Your task to perform on an android device: Open the calendar and show me this week's events? Image 0: 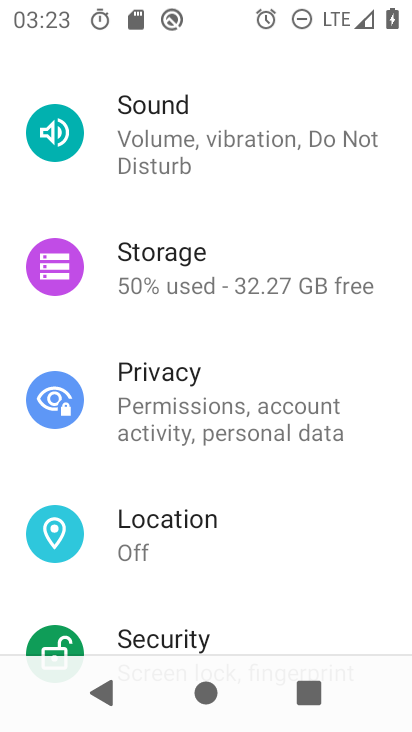
Step 0: press home button
Your task to perform on an android device: Open the calendar and show me this week's events? Image 1: 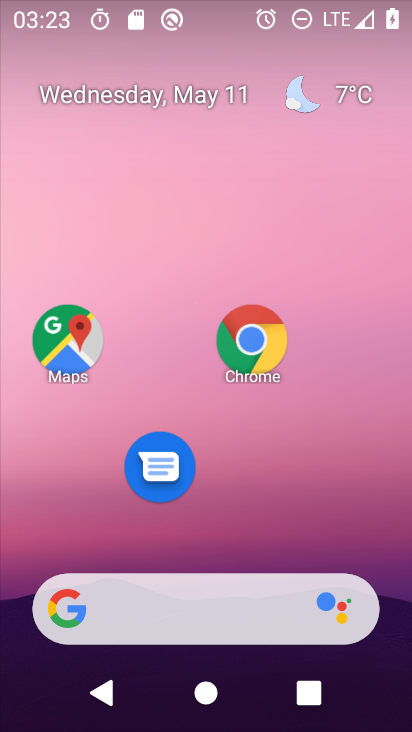
Step 1: drag from (207, 610) to (325, 176)
Your task to perform on an android device: Open the calendar and show me this week's events? Image 2: 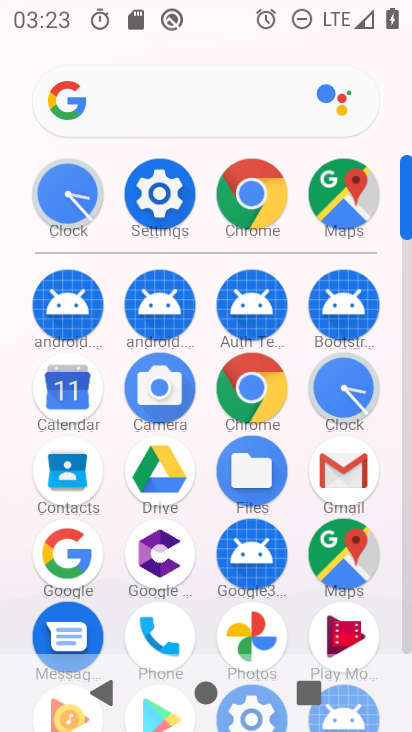
Step 2: click (66, 401)
Your task to perform on an android device: Open the calendar and show me this week's events? Image 3: 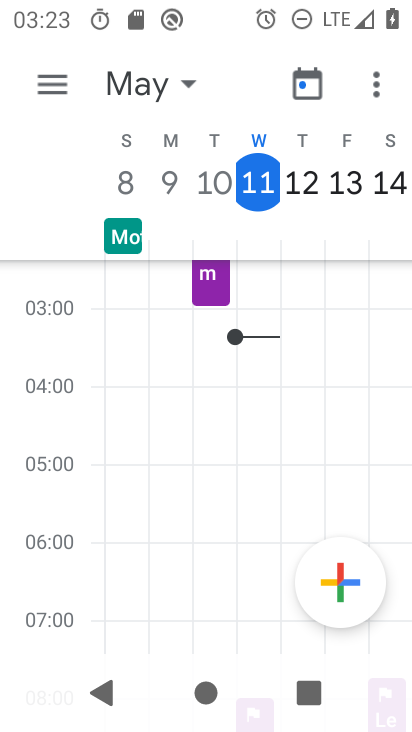
Step 3: click (139, 86)
Your task to perform on an android device: Open the calendar and show me this week's events? Image 4: 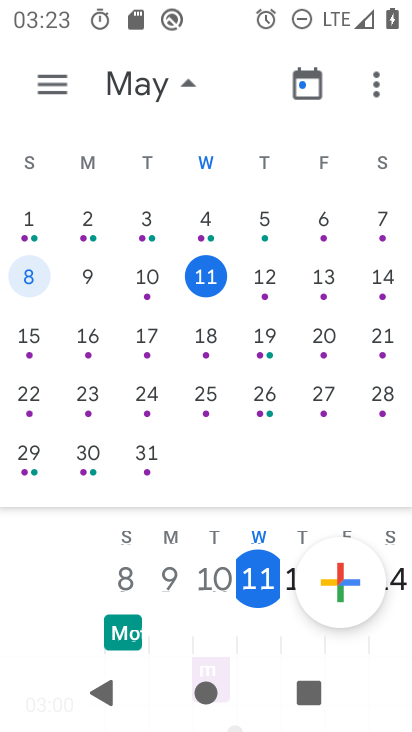
Step 4: click (197, 274)
Your task to perform on an android device: Open the calendar and show me this week's events? Image 5: 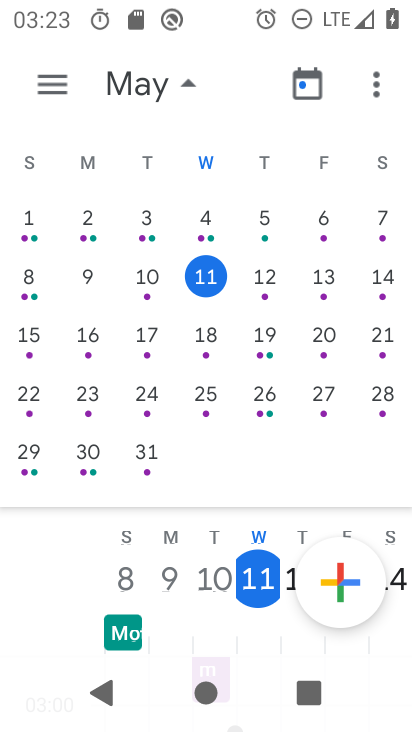
Step 5: click (53, 78)
Your task to perform on an android device: Open the calendar and show me this week's events? Image 6: 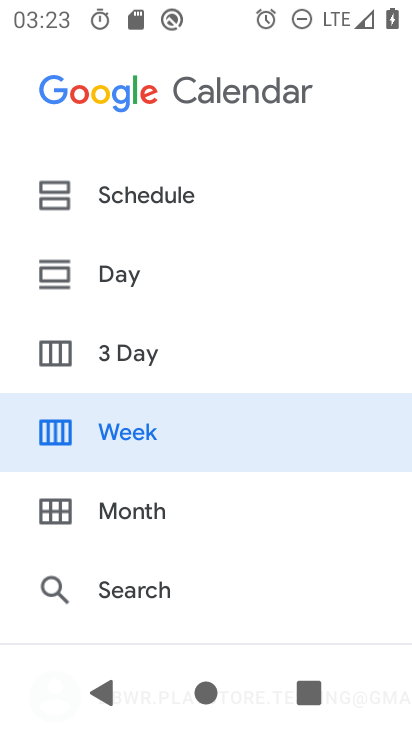
Step 6: click (123, 427)
Your task to perform on an android device: Open the calendar and show me this week's events? Image 7: 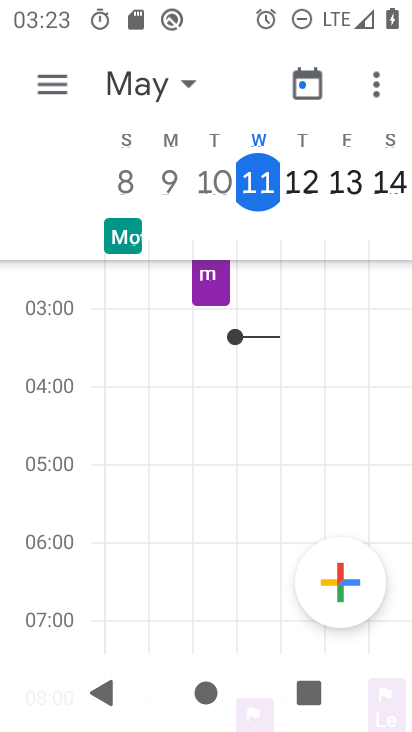
Step 7: click (52, 84)
Your task to perform on an android device: Open the calendar and show me this week's events? Image 8: 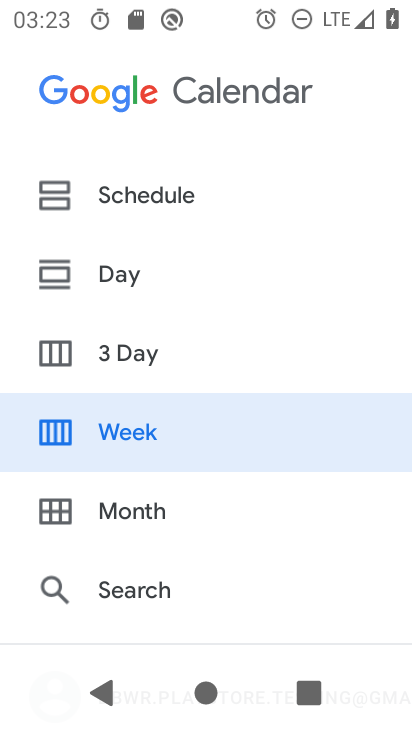
Step 8: click (139, 198)
Your task to perform on an android device: Open the calendar and show me this week's events? Image 9: 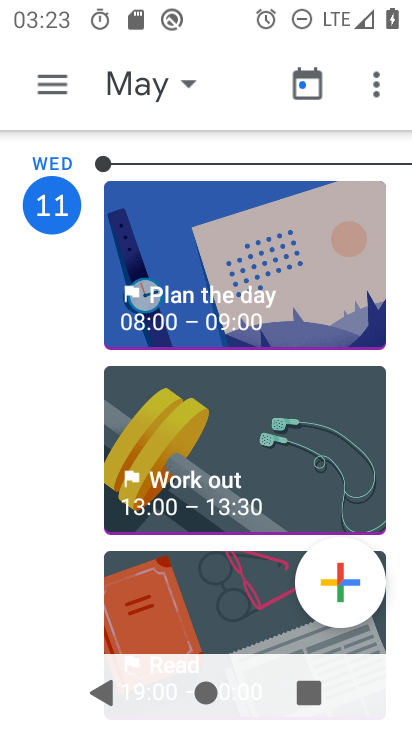
Step 9: drag from (201, 525) to (371, 172)
Your task to perform on an android device: Open the calendar and show me this week's events? Image 10: 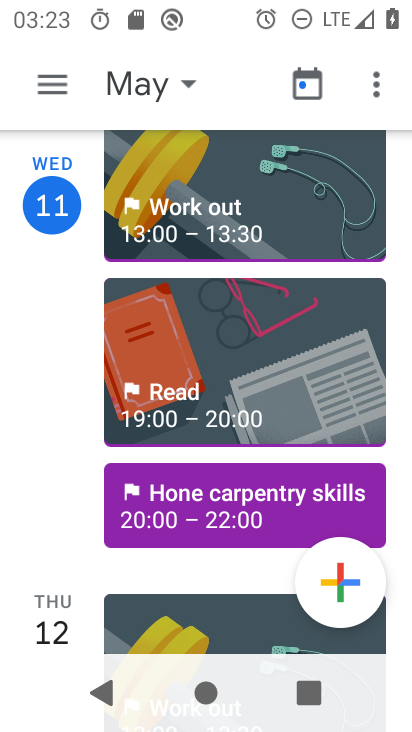
Step 10: click (186, 528)
Your task to perform on an android device: Open the calendar and show me this week's events? Image 11: 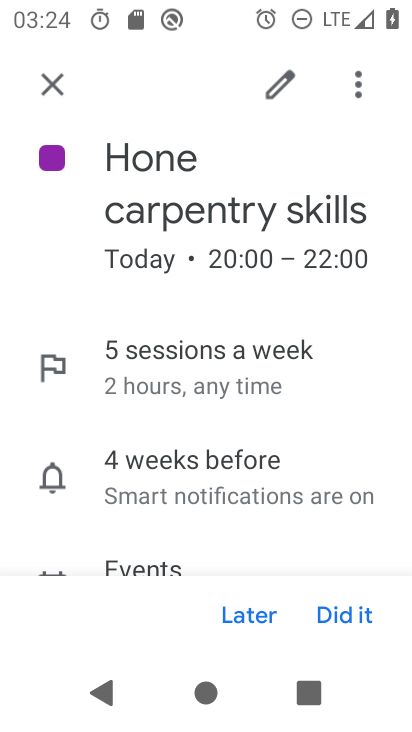
Step 11: task complete